Your task to perform on an android device: Go to notification settings Image 0: 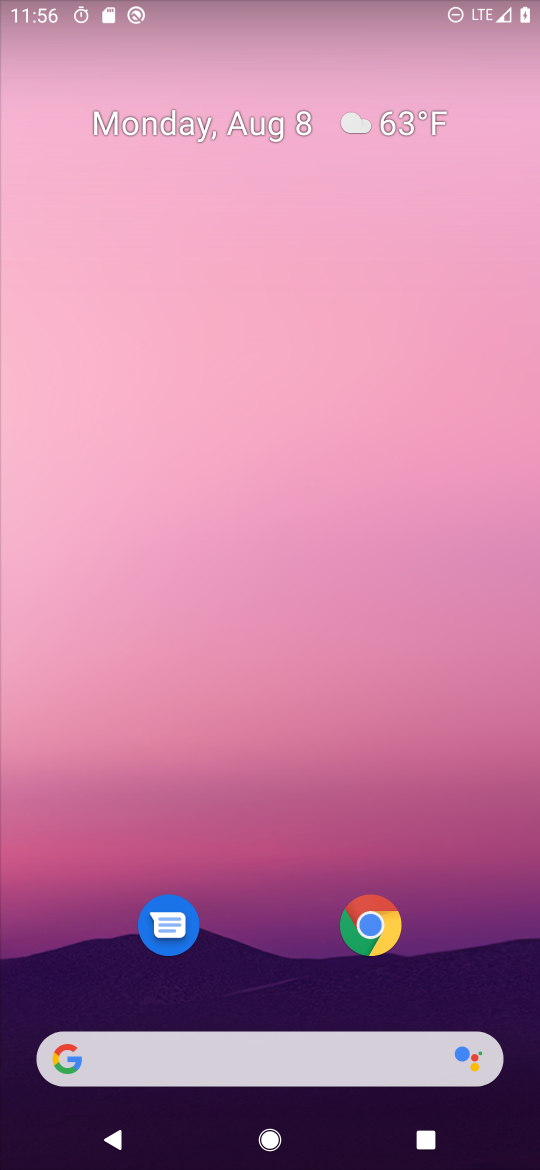
Step 0: drag from (263, 679) to (295, 97)
Your task to perform on an android device: Go to notification settings Image 1: 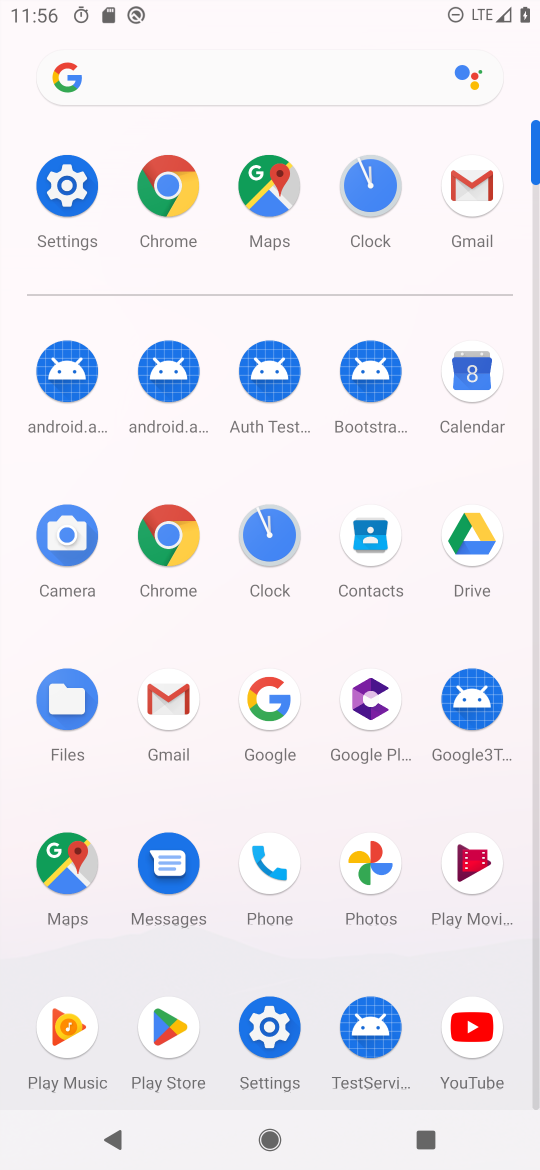
Step 1: click (78, 147)
Your task to perform on an android device: Go to notification settings Image 2: 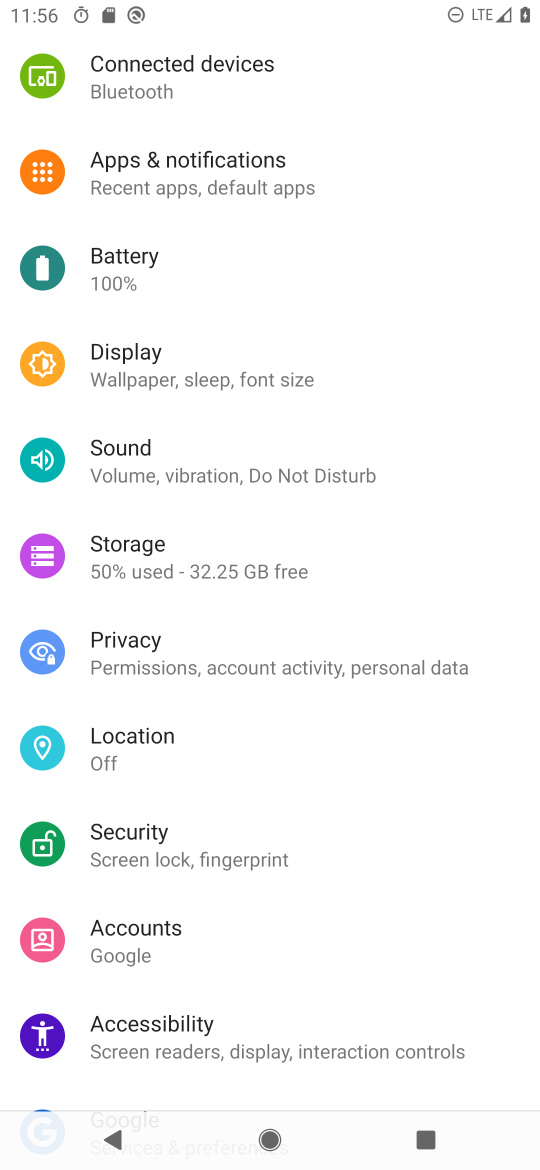
Step 2: click (203, 183)
Your task to perform on an android device: Go to notification settings Image 3: 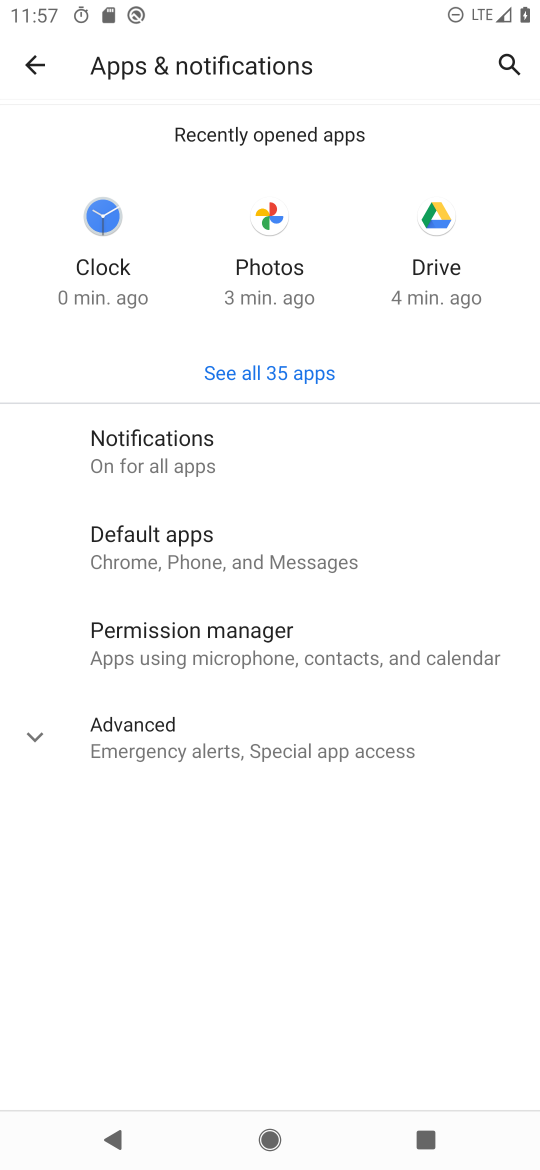
Step 3: click (201, 456)
Your task to perform on an android device: Go to notification settings Image 4: 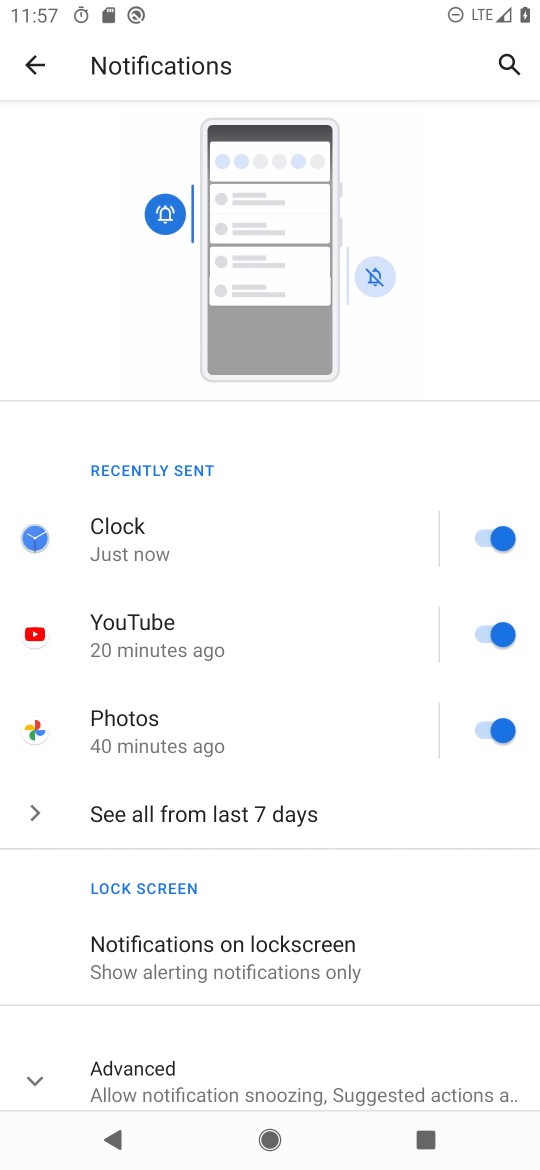
Step 4: task complete